Your task to perform on an android device: add a contact Image 0: 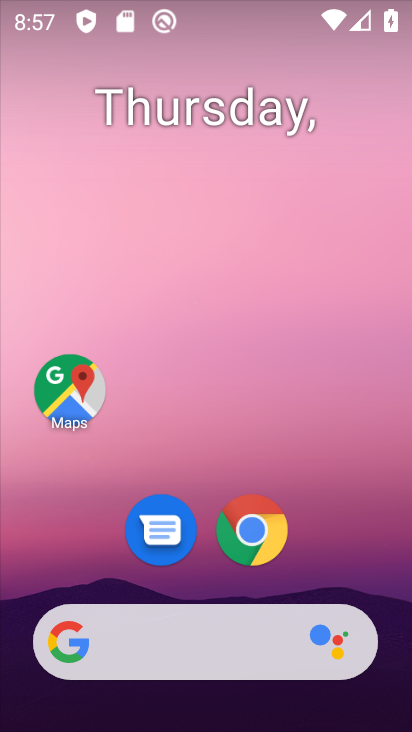
Step 0: drag from (357, 534) to (278, 16)
Your task to perform on an android device: add a contact Image 1: 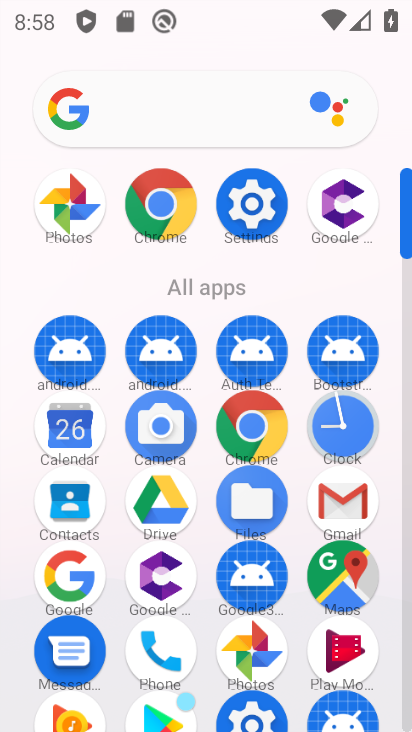
Step 1: drag from (9, 616) to (21, 308)
Your task to perform on an android device: add a contact Image 2: 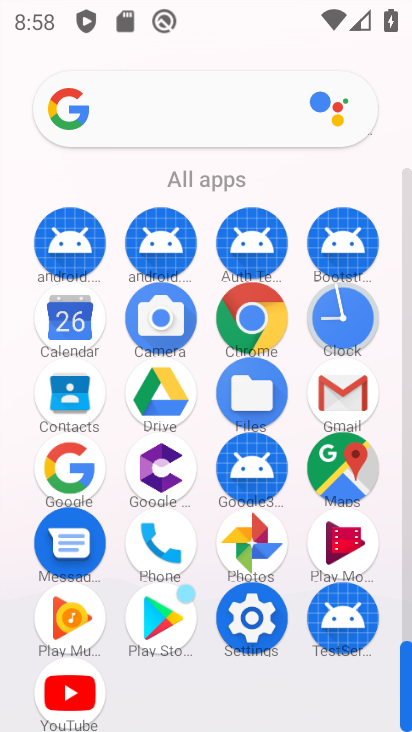
Step 2: click (67, 390)
Your task to perform on an android device: add a contact Image 3: 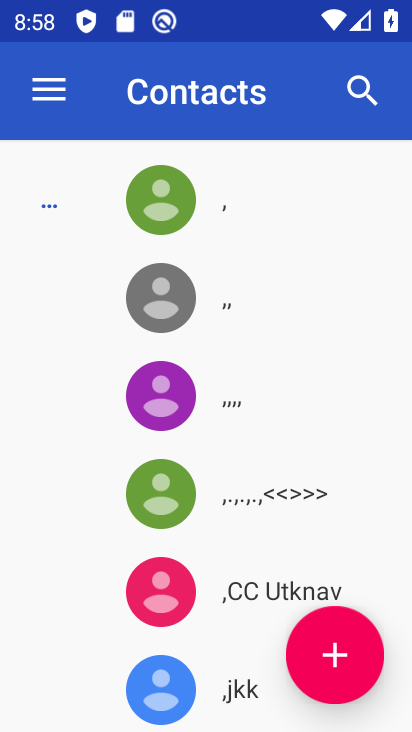
Step 3: click (314, 662)
Your task to perform on an android device: add a contact Image 4: 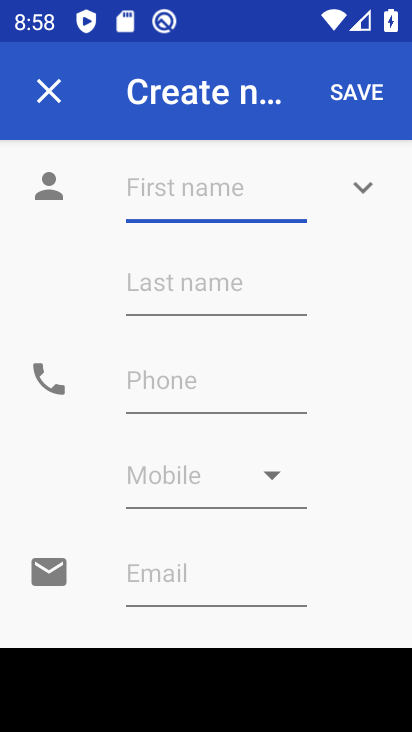
Step 4: type "fghg"
Your task to perform on an android device: add a contact Image 5: 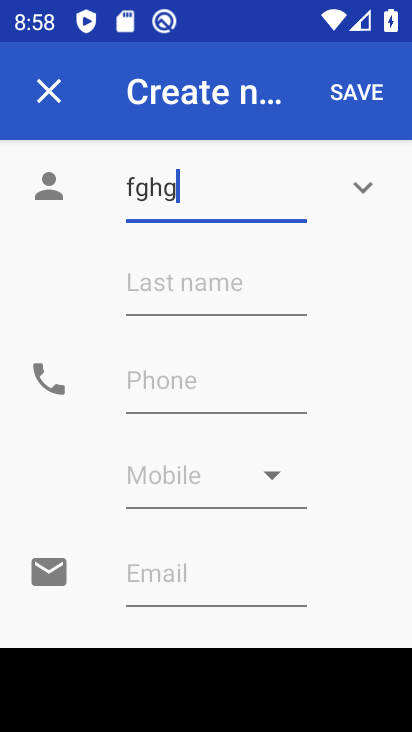
Step 5: type ""
Your task to perform on an android device: add a contact Image 6: 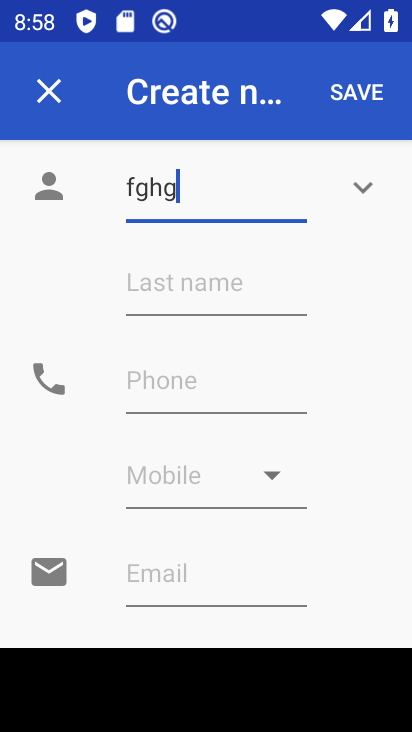
Step 6: click (177, 386)
Your task to perform on an android device: add a contact Image 7: 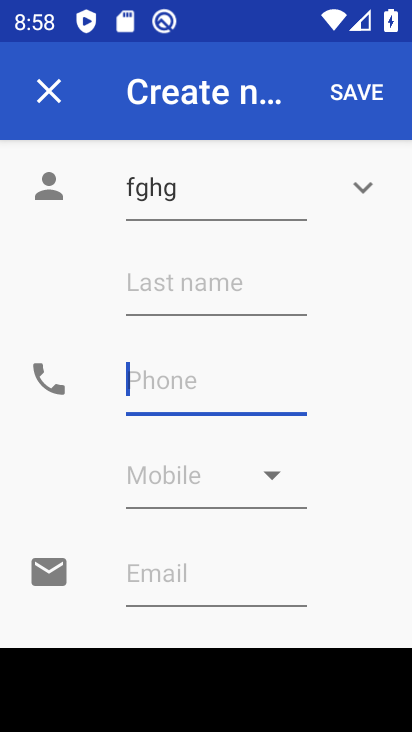
Step 7: type "6765433334"
Your task to perform on an android device: add a contact Image 8: 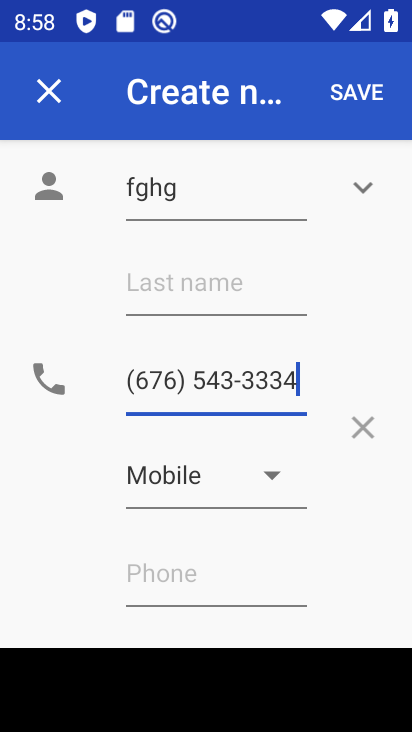
Step 8: click (364, 93)
Your task to perform on an android device: add a contact Image 9: 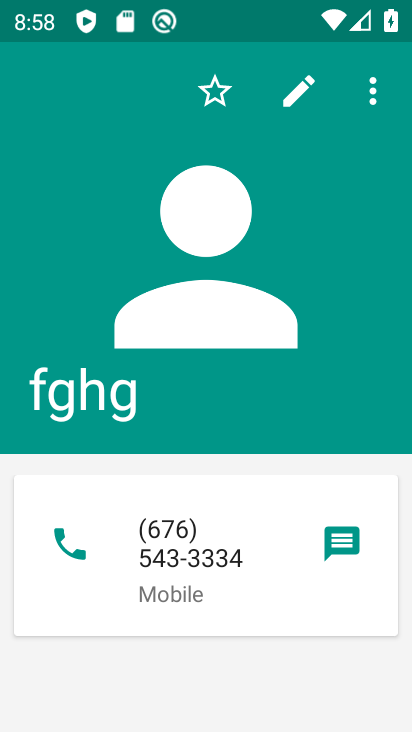
Step 9: task complete